Your task to perform on an android device: delete a single message in the gmail app Image 0: 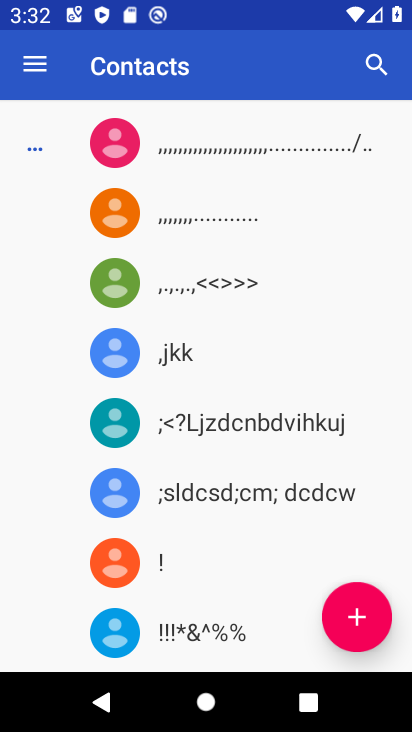
Step 0: press home button
Your task to perform on an android device: delete a single message in the gmail app Image 1: 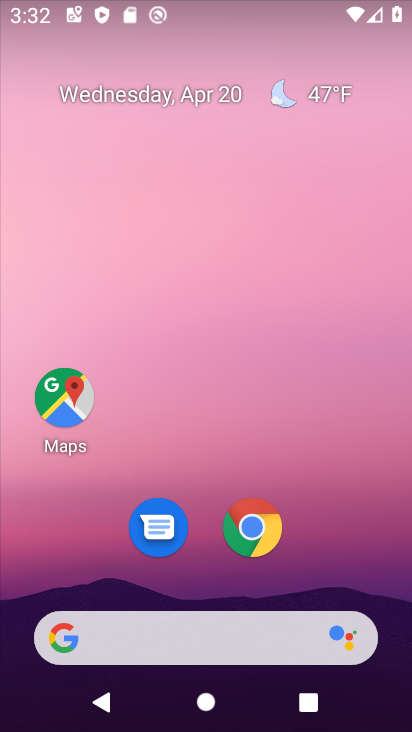
Step 1: drag from (327, 545) to (316, 188)
Your task to perform on an android device: delete a single message in the gmail app Image 2: 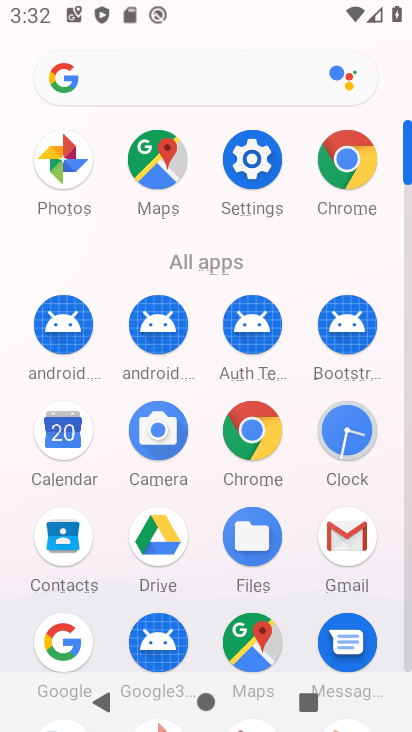
Step 2: click (343, 563)
Your task to perform on an android device: delete a single message in the gmail app Image 3: 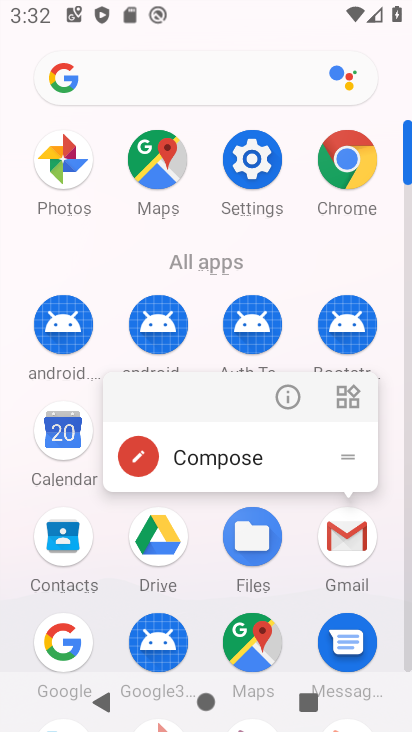
Step 3: click (351, 544)
Your task to perform on an android device: delete a single message in the gmail app Image 4: 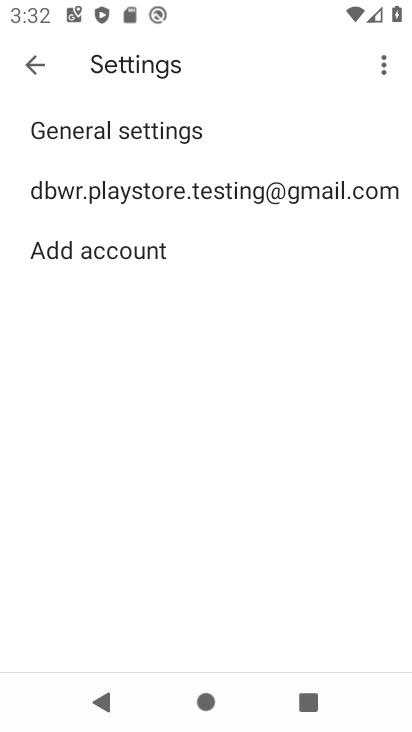
Step 4: drag from (167, 188) to (192, 451)
Your task to perform on an android device: delete a single message in the gmail app Image 5: 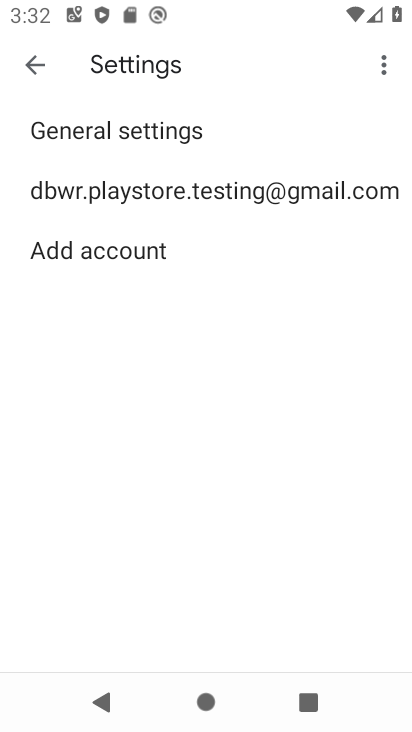
Step 5: press home button
Your task to perform on an android device: delete a single message in the gmail app Image 6: 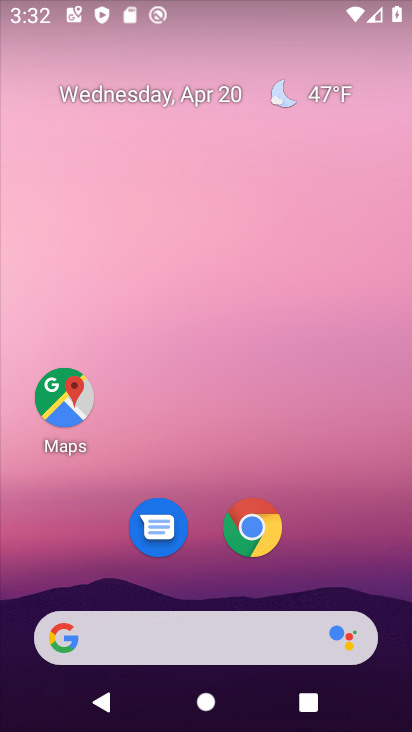
Step 6: drag from (275, 536) to (268, 135)
Your task to perform on an android device: delete a single message in the gmail app Image 7: 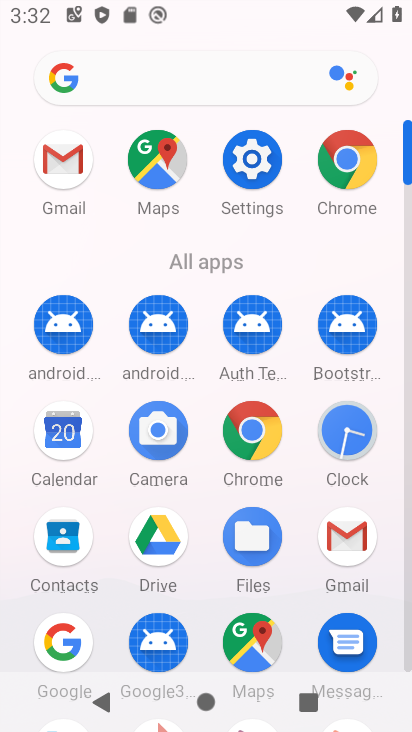
Step 7: click (343, 542)
Your task to perform on an android device: delete a single message in the gmail app Image 8: 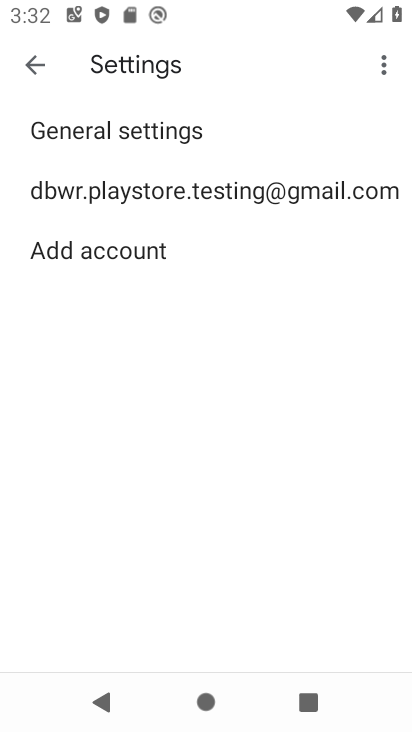
Step 8: click (191, 203)
Your task to perform on an android device: delete a single message in the gmail app Image 9: 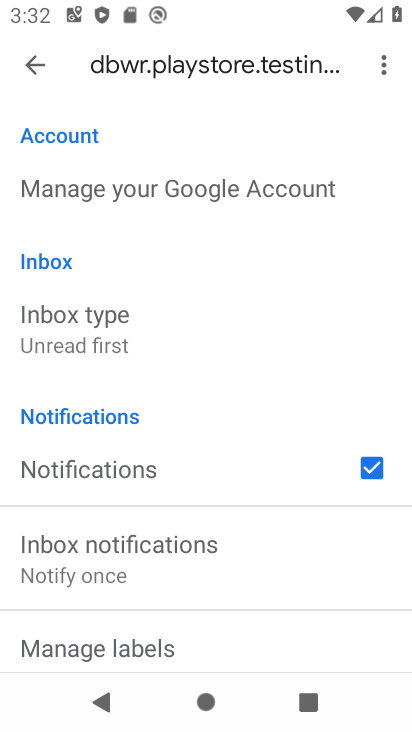
Step 9: drag from (170, 594) to (213, 119)
Your task to perform on an android device: delete a single message in the gmail app Image 10: 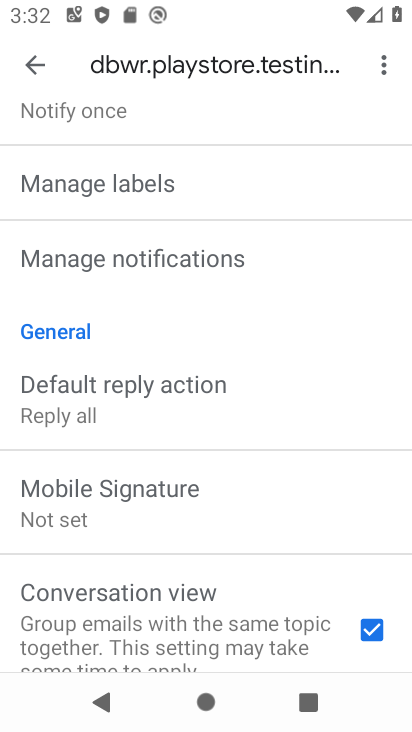
Step 10: drag from (208, 547) to (208, 198)
Your task to perform on an android device: delete a single message in the gmail app Image 11: 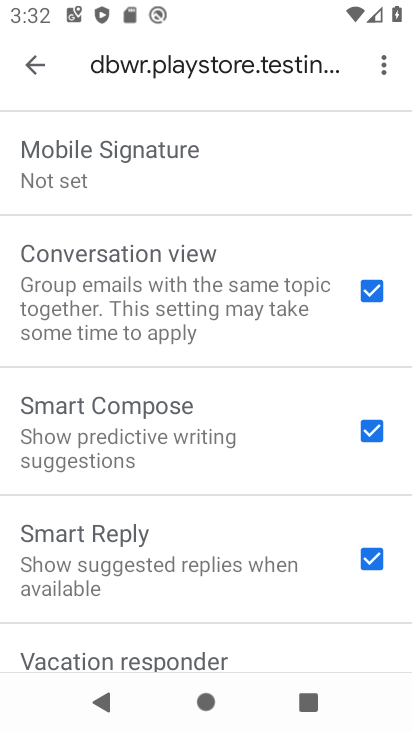
Step 11: drag from (202, 494) to (236, 182)
Your task to perform on an android device: delete a single message in the gmail app Image 12: 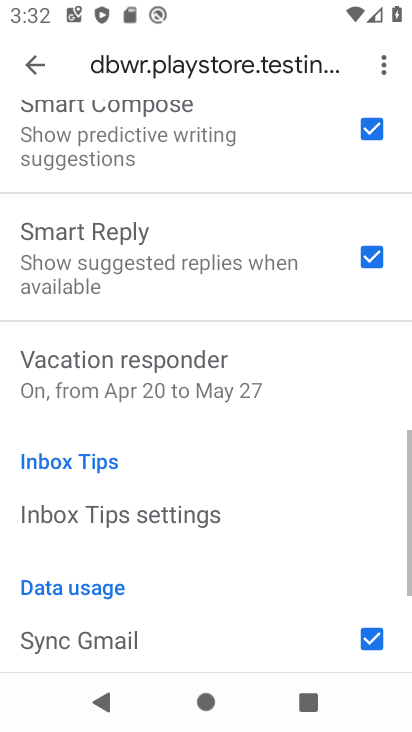
Step 12: click (32, 56)
Your task to perform on an android device: delete a single message in the gmail app Image 13: 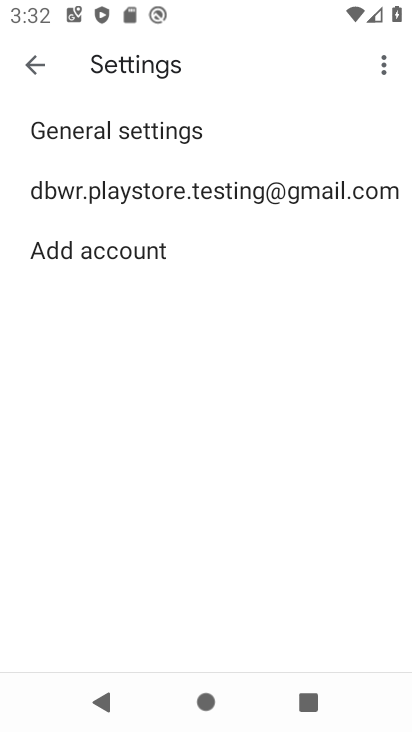
Step 13: click (32, 56)
Your task to perform on an android device: delete a single message in the gmail app Image 14: 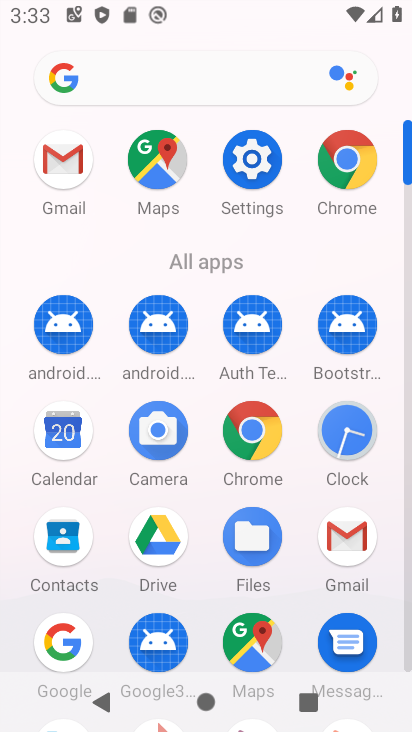
Step 14: click (361, 550)
Your task to perform on an android device: delete a single message in the gmail app Image 15: 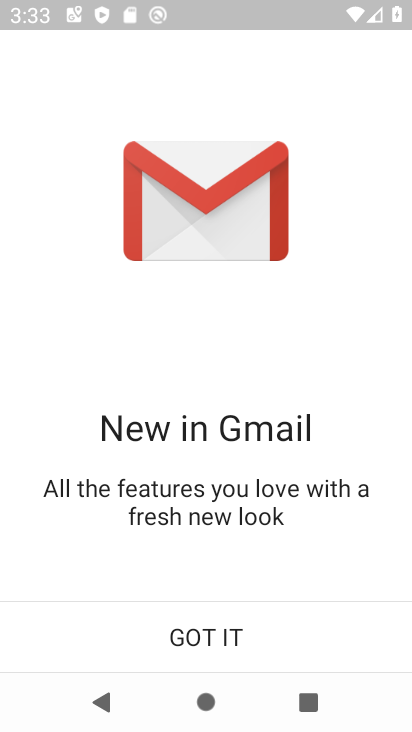
Step 15: click (214, 647)
Your task to perform on an android device: delete a single message in the gmail app Image 16: 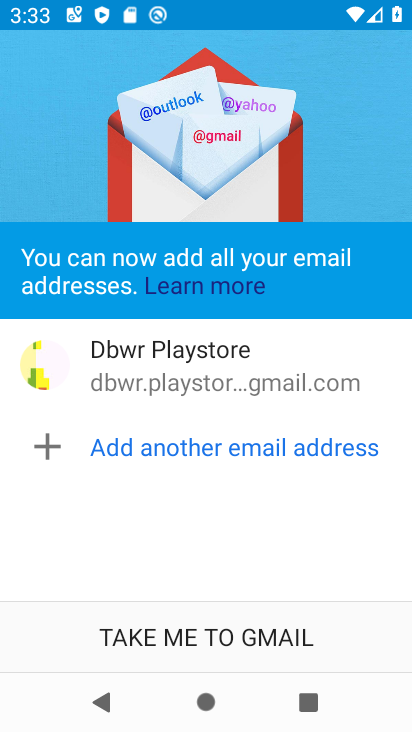
Step 16: click (214, 635)
Your task to perform on an android device: delete a single message in the gmail app Image 17: 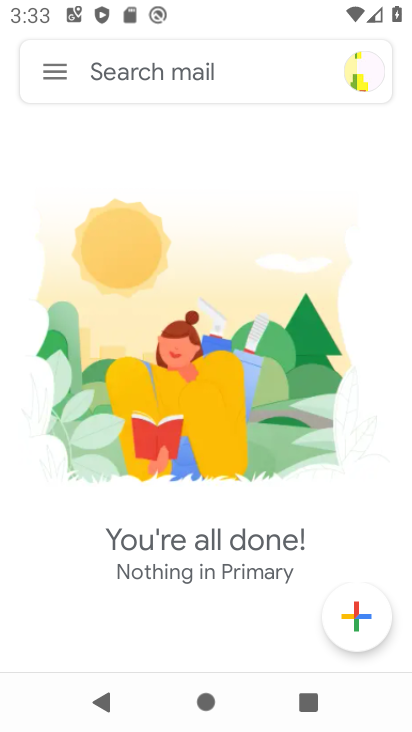
Step 17: task complete